Your task to perform on an android device: Open ESPN.com Image 0: 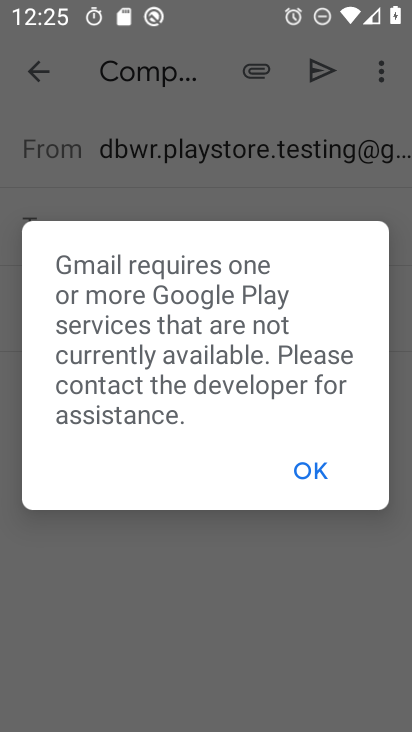
Step 0: press back button
Your task to perform on an android device: Open ESPN.com Image 1: 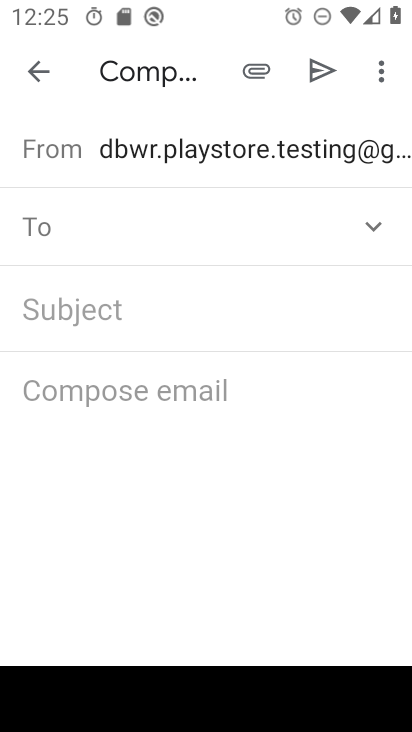
Step 1: click (310, 473)
Your task to perform on an android device: Open ESPN.com Image 2: 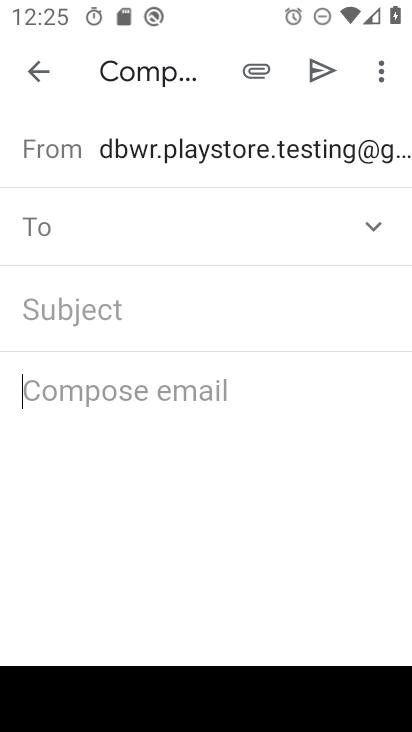
Step 2: click (38, 68)
Your task to perform on an android device: Open ESPN.com Image 3: 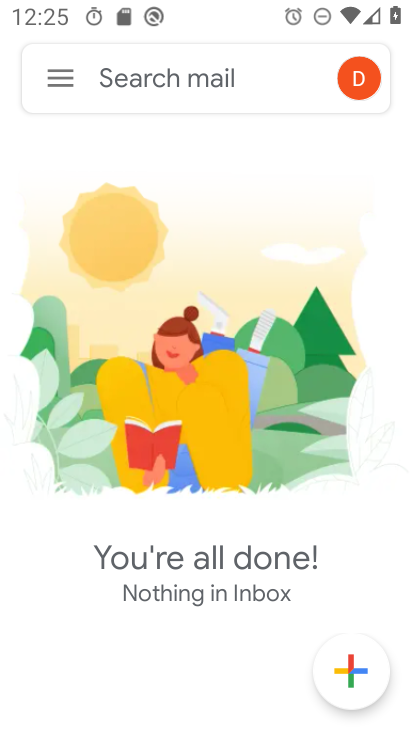
Step 3: drag from (233, 683) to (232, 241)
Your task to perform on an android device: Open ESPN.com Image 4: 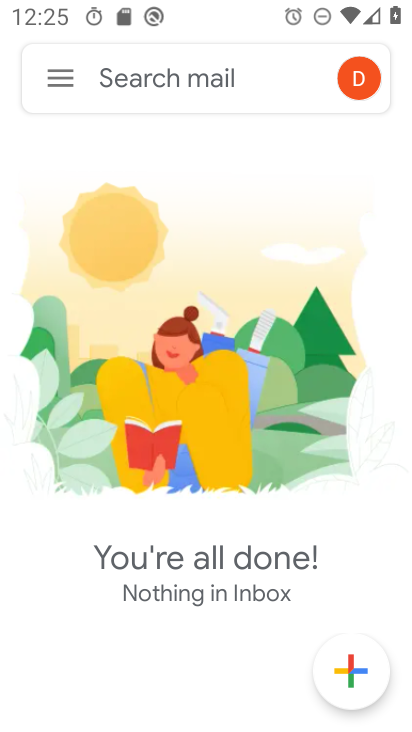
Step 4: press home button
Your task to perform on an android device: Open ESPN.com Image 5: 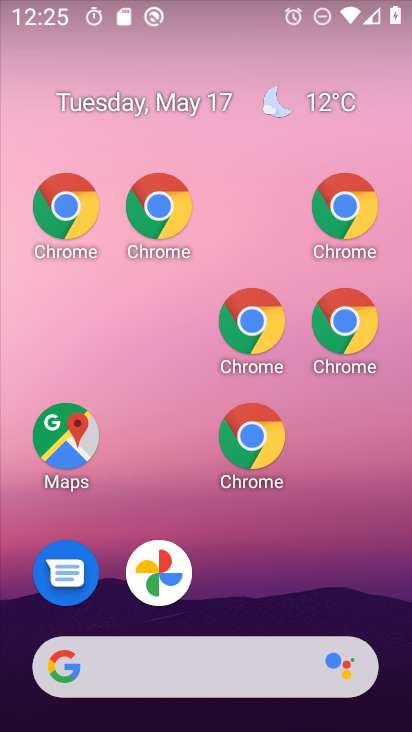
Step 5: drag from (310, 624) to (164, 108)
Your task to perform on an android device: Open ESPN.com Image 6: 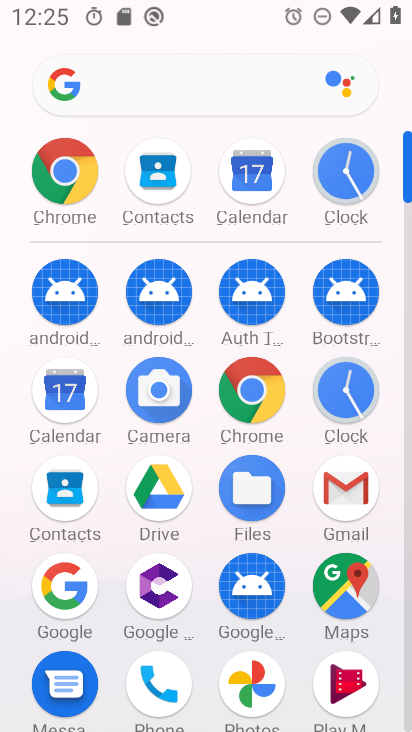
Step 6: click (73, 176)
Your task to perform on an android device: Open ESPN.com Image 7: 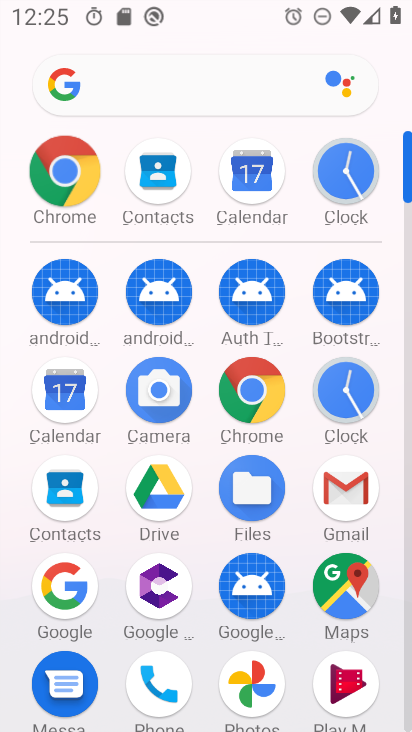
Step 7: click (73, 176)
Your task to perform on an android device: Open ESPN.com Image 8: 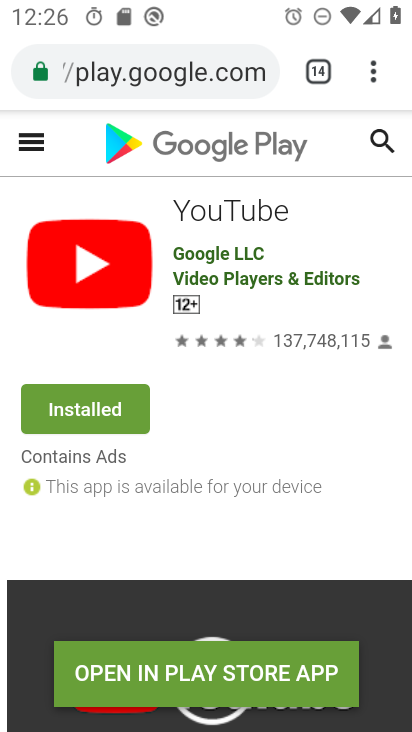
Step 8: press back button
Your task to perform on an android device: Open ESPN.com Image 9: 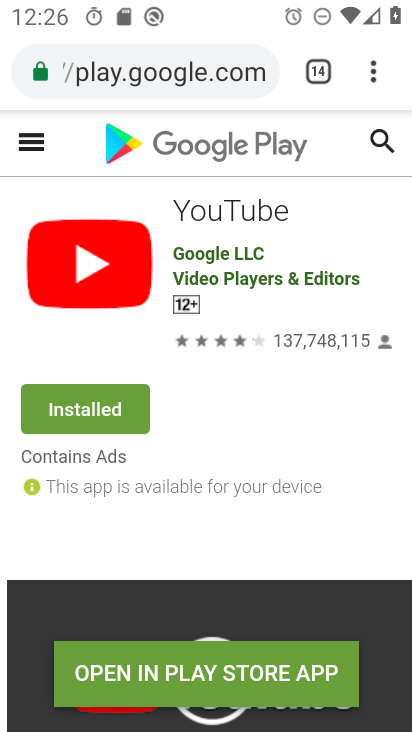
Step 9: press back button
Your task to perform on an android device: Open ESPN.com Image 10: 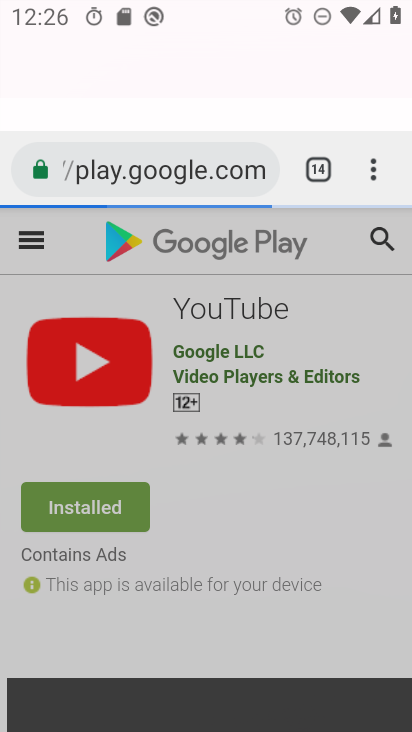
Step 10: press back button
Your task to perform on an android device: Open ESPN.com Image 11: 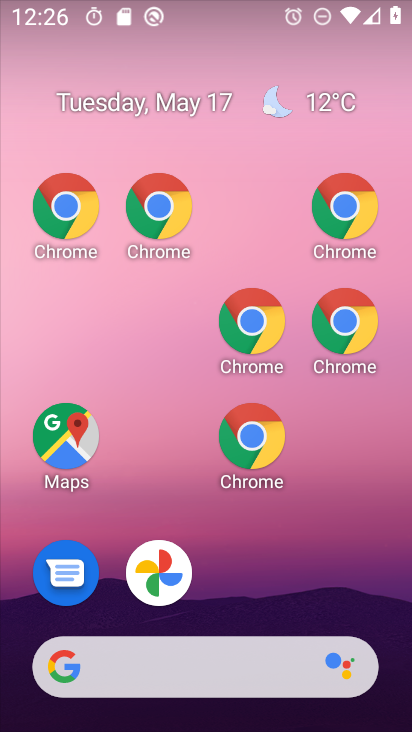
Step 11: drag from (351, 614) to (283, 191)
Your task to perform on an android device: Open ESPN.com Image 12: 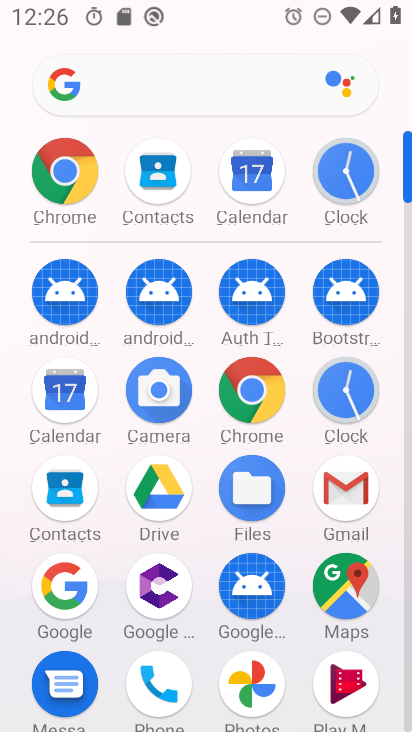
Step 12: click (61, 176)
Your task to perform on an android device: Open ESPN.com Image 13: 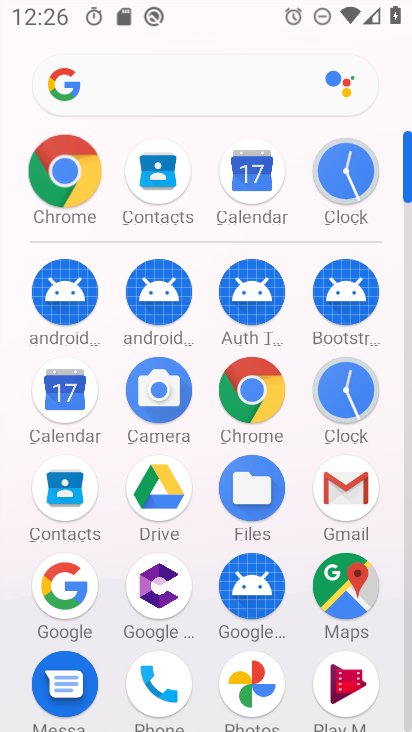
Step 13: click (69, 175)
Your task to perform on an android device: Open ESPN.com Image 14: 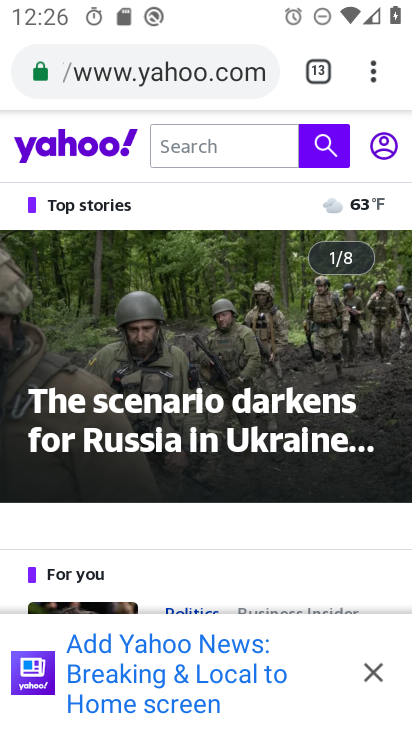
Step 14: drag from (259, 487) to (286, 272)
Your task to perform on an android device: Open ESPN.com Image 15: 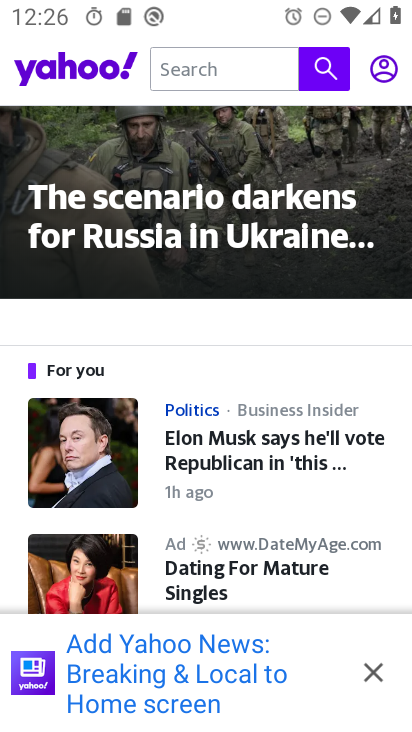
Step 15: press back button
Your task to perform on an android device: Open ESPN.com Image 16: 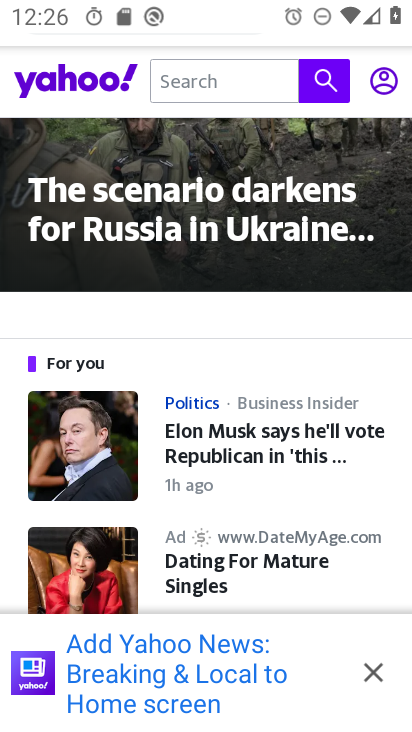
Step 16: press back button
Your task to perform on an android device: Open ESPN.com Image 17: 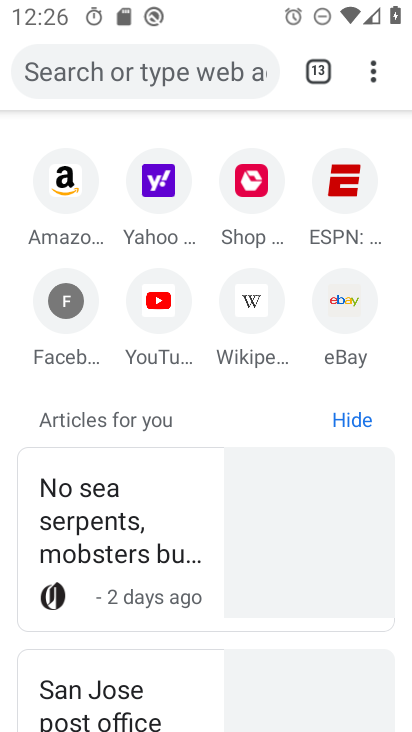
Step 17: press back button
Your task to perform on an android device: Open ESPN.com Image 18: 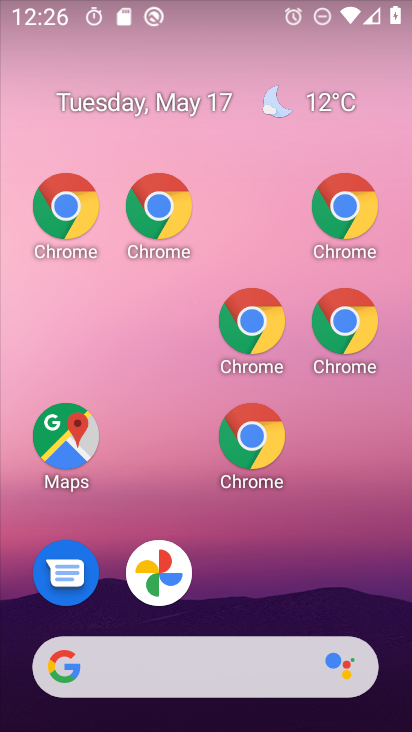
Step 18: drag from (237, 345) to (229, 21)
Your task to perform on an android device: Open ESPN.com Image 19: 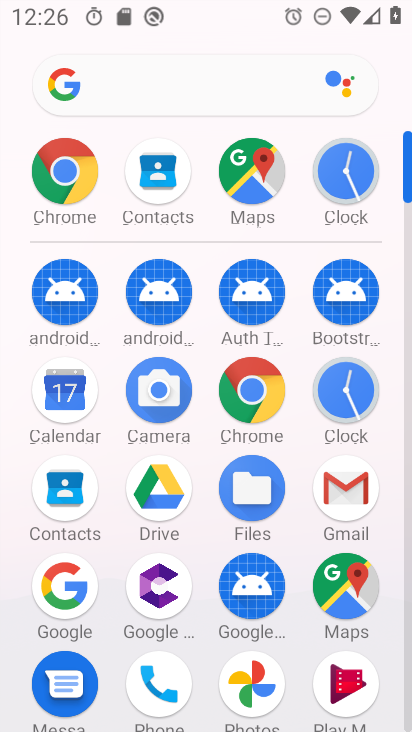
Step 19: click (83, 175)
Your task to perform on an android device: Open ESPN.com Image 20: 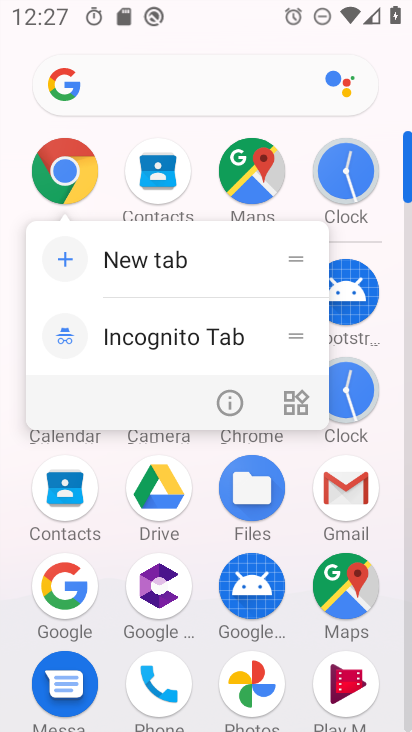
Step 20: click (177, 263)
Your task to perform on an android device: Open ESPN.com Image 21: 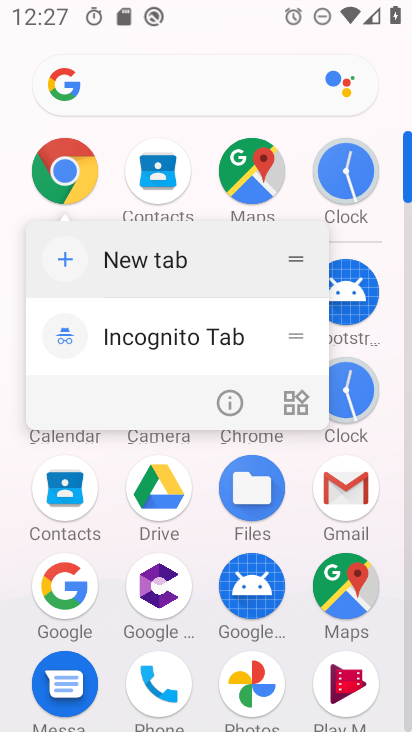
Step 21: click (177, 263)
Your task to perform on an android device: Open ESPN.com Image 22: 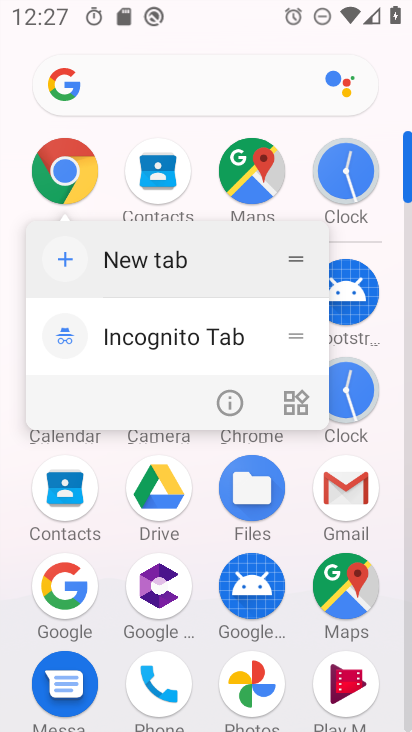
Step 22: click (177, 263)
Your task to perform on an android device: Open ESPN.com Image 23: 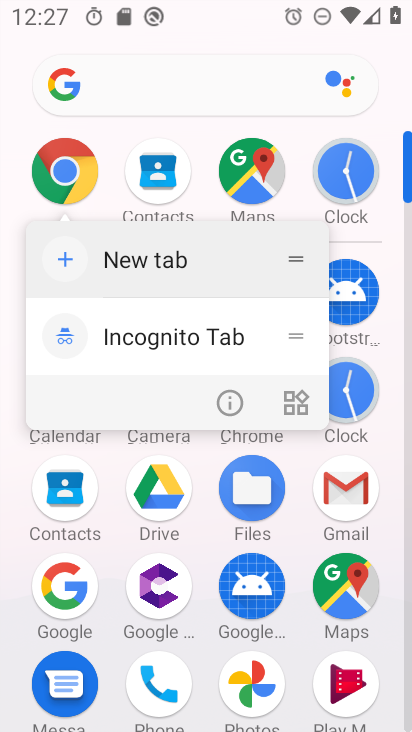
Step 23: click (180, 264)
Your task to perform on an android device: Open ESPN.com Image 24: 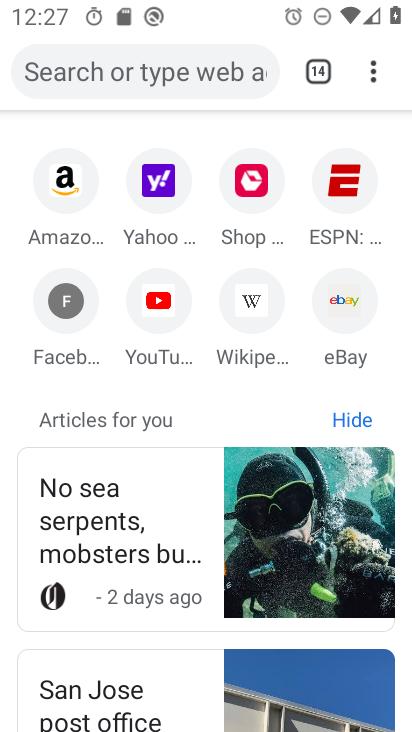
Step 24: click (330, 199)
Your task to perform on an android device: Open ESPN.com Image 25: 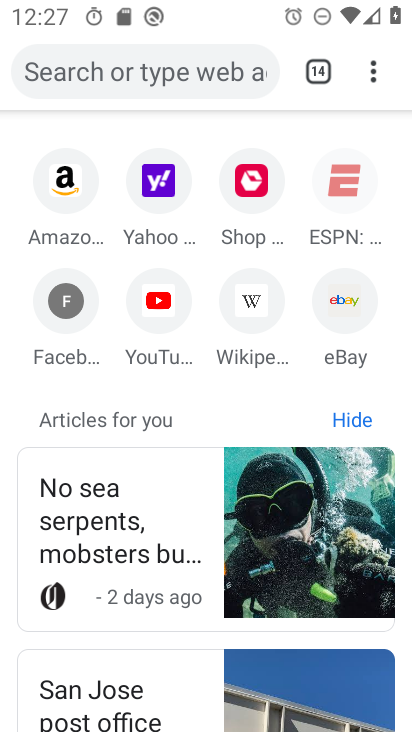
Step 25: click (334, 199)
Your task to perform on an android device: Open ESPN.com Image 26: 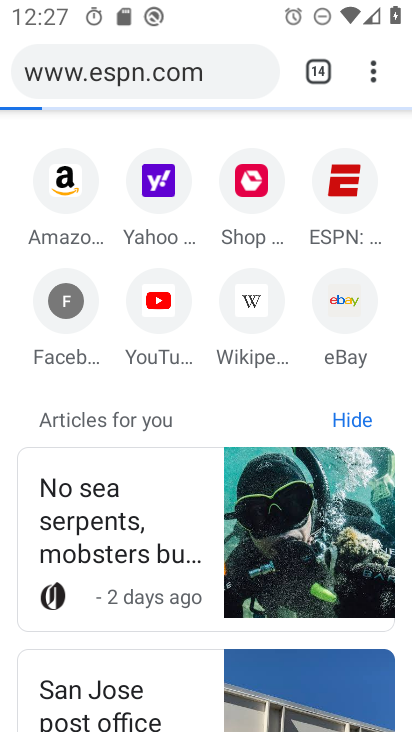
Step 26: click (334, 199)
Your task to perform on an android device: Open ESPN.com Image 27: 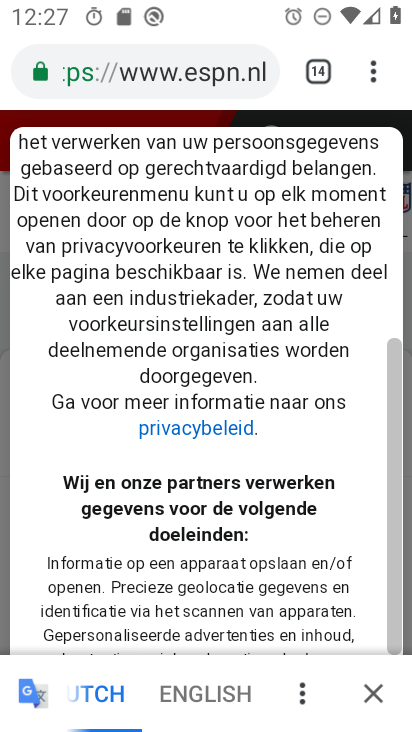
Step 27: drag from (388, 75) to (130, 143)
Your task to perform on an android device: Open ESPN.com Image 28: 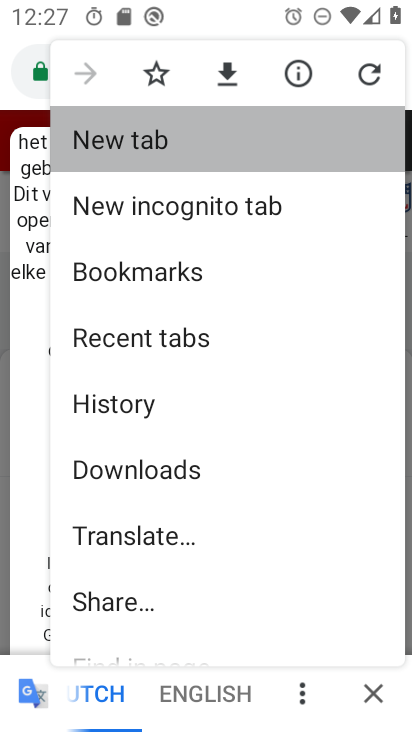
Step 28: click (131, 144)
Your task to perform on an android device: Open ESPN.com Image 29: 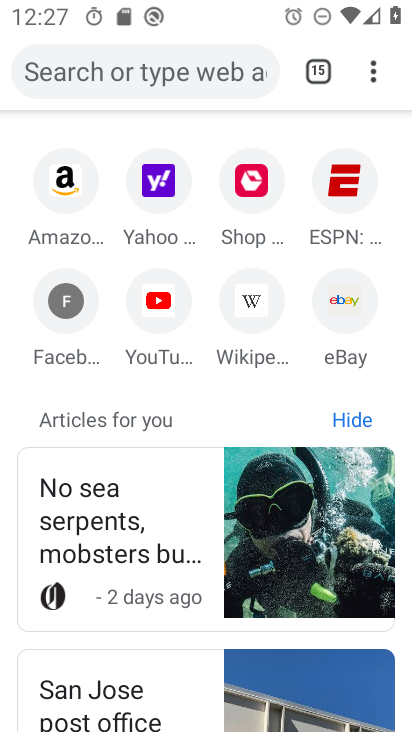
Step 29: click (349, 209)
Your task to perform on an android device: Open ESPN.com Image 30: 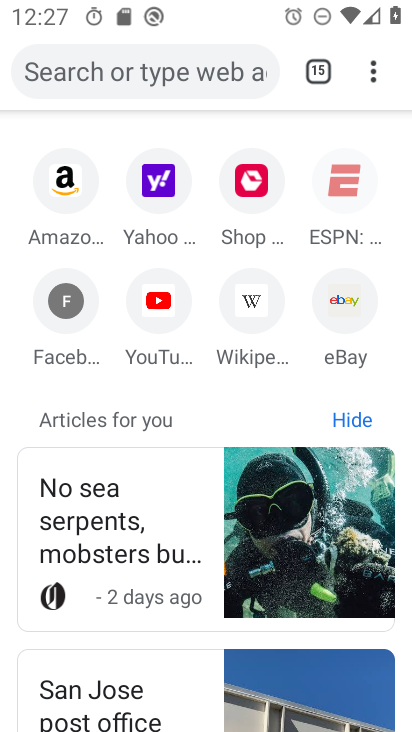
Step 30: click (349, 209)
Your task to perform on an android device: Open ESPN.com Image 31: 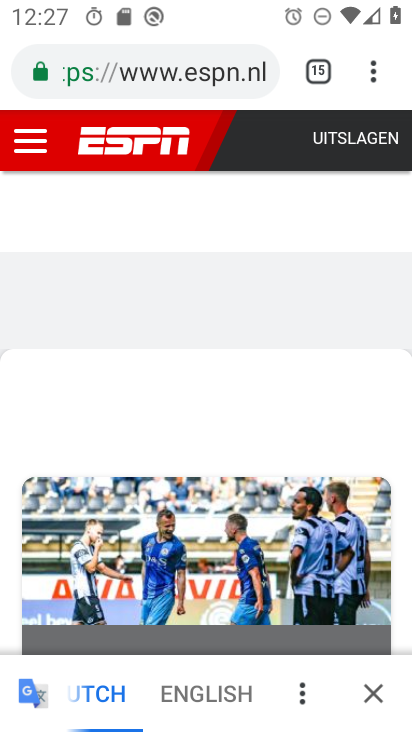
Step 31: task complete